Your task to perform on an android device: find photos in the google photos app Image 0: 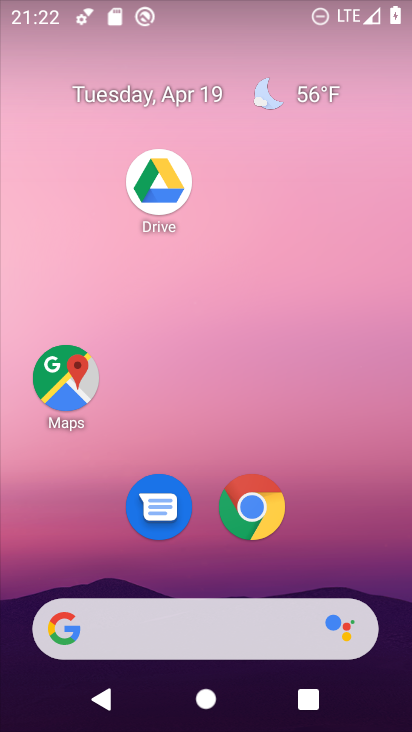
Step 0: drag from (358, 528) to (378, 138)
Your task to perform on an android device: find photos in the google photos app Image 1: 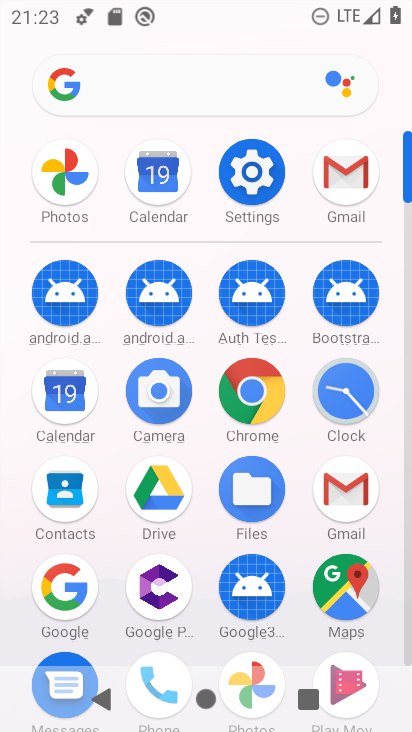
Step 1: click (73, 173)
Your task to perform on an android device: find photos in the google photos app Image 2: 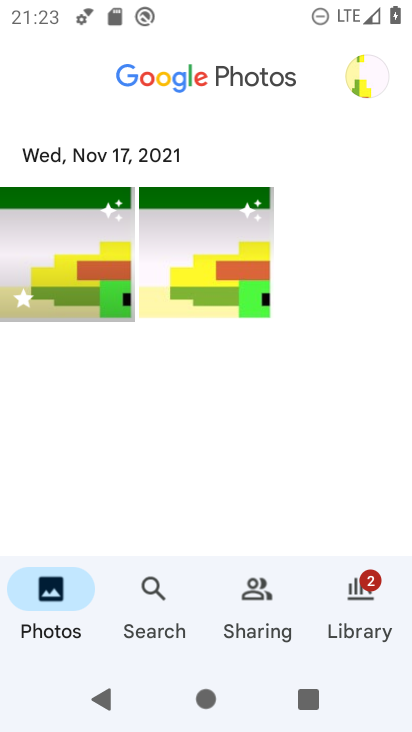
Step 2: task complete